Your task to perform on an android device: toggle location history Image 0: 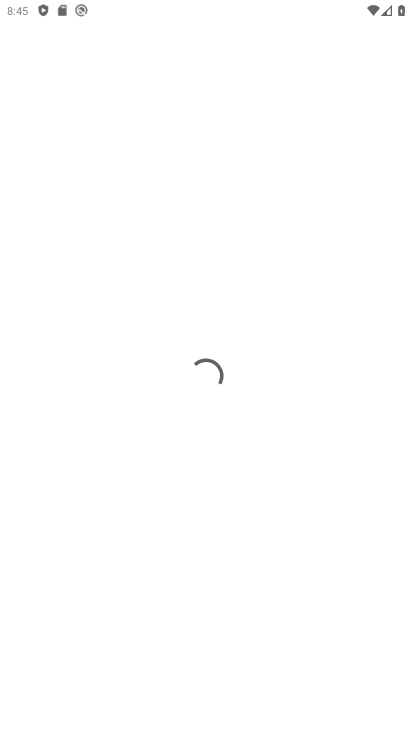
Step 0: press home button
Your task to perform on an android device: toggle location history Image 1: 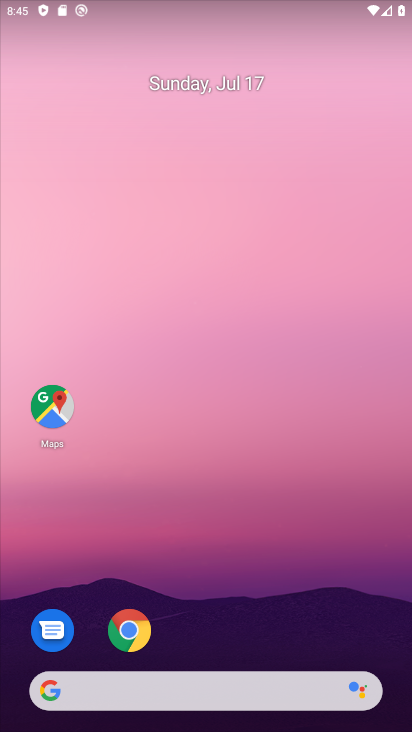
Step 1: drag from (247, 629) to (262, 209)
Your task to perform on an android device: toggle location history Image 2: 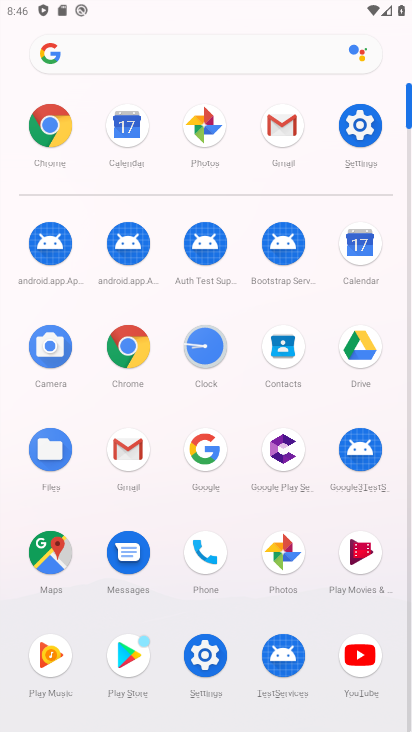
Step 2: click (221, 640)
Your task to perform on an android device: toggle location history Image 3: 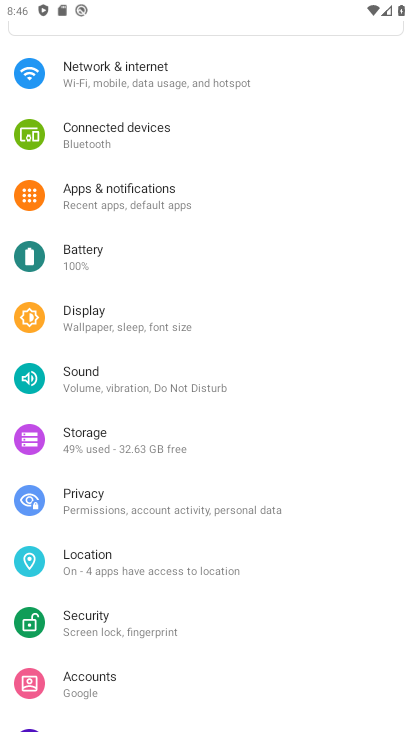
Step 3: click (132, 574)
Your task to perform on an android device: toggle location history Image 4: 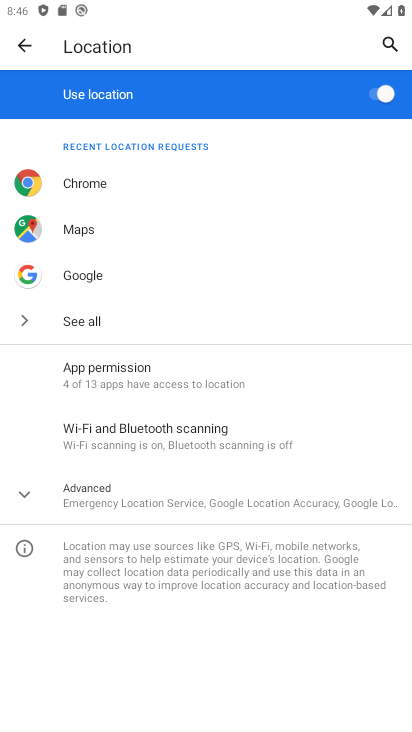
Step 4: task complete